Your task to perform on an android device: Show me recent news Image 0: 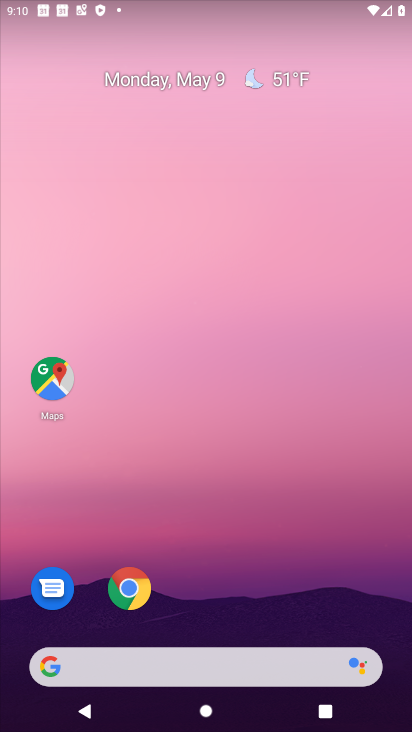
Step 0: drag from (6, 260) to (371, 226)
Your task to perform on an android device: Show me recent news Image 1: 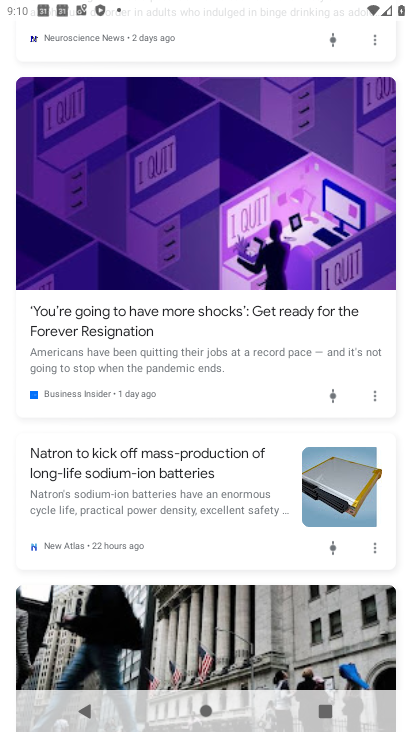
Step 1: task complete